Your task to perform on an android device: check google app version Image 0: 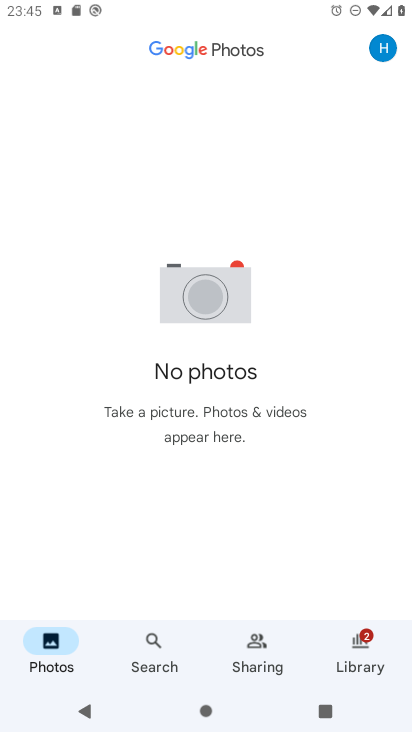
Step 0: press home button
Your task to perform on an android device: check google app version Image 1: 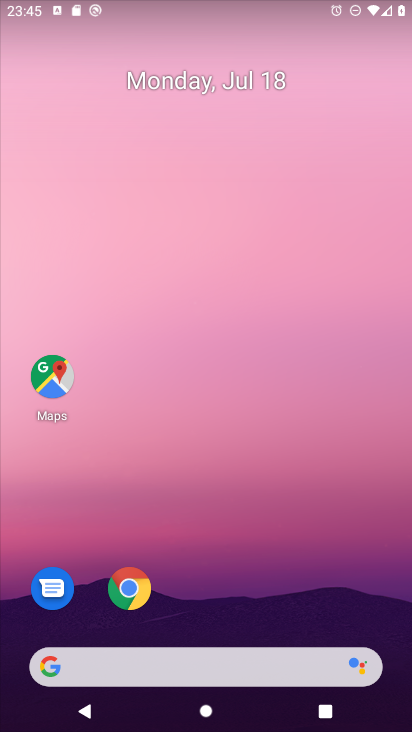
Step 1: click (126, 586)
Your task to perform on an android device: check google app version Image 2: 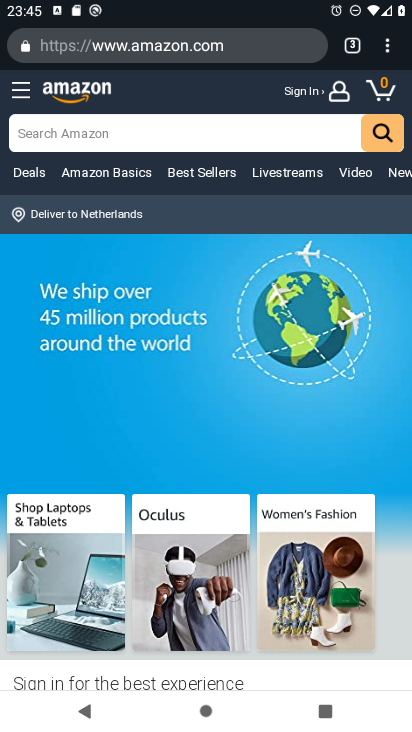
Step 2: click (390, 50)
Your task to perform on an android device: check google app version Image 3: 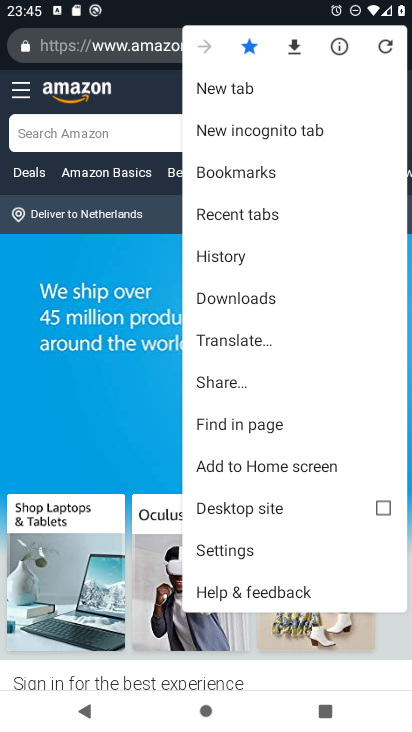
Step 3: click (215, 539)
Your task to perform on an android device: check google app version Image 4: 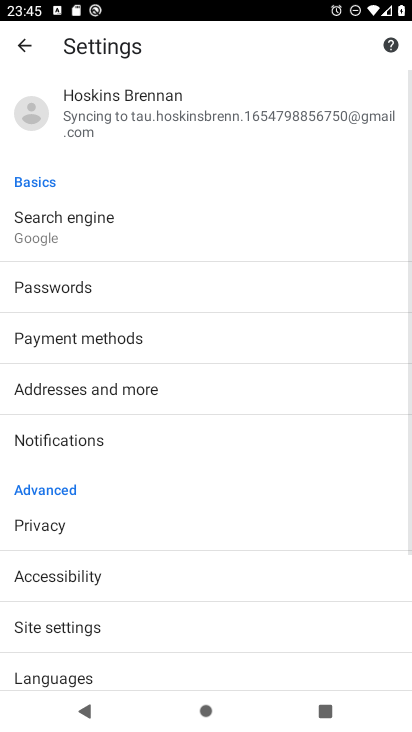
Step 4: drag from (170, 625) to (211, 112)
Your task to perform on an android device: check google app version Image 5: 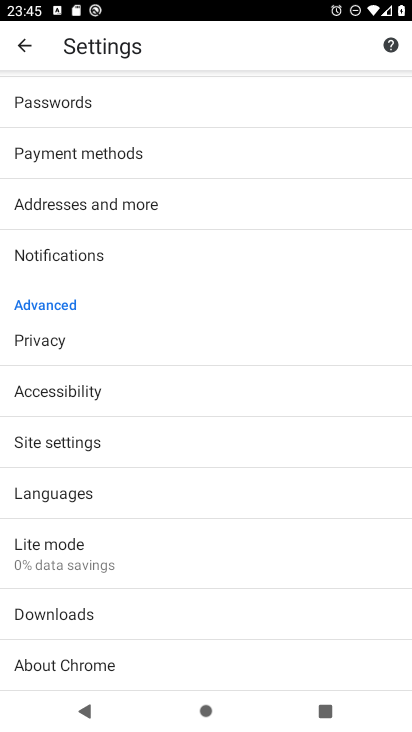
Step 5: click (42, 667)
Your task to perform on an android device: check google app version Image 6: 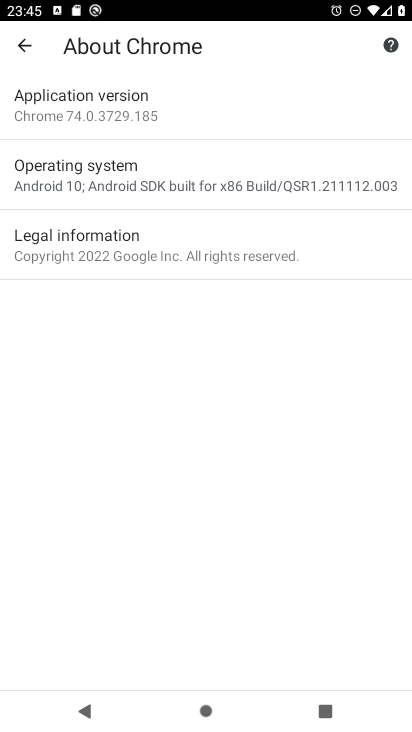
Step 6: click (108, 100)
Your task to perform on an android device: check google app version Image 7: 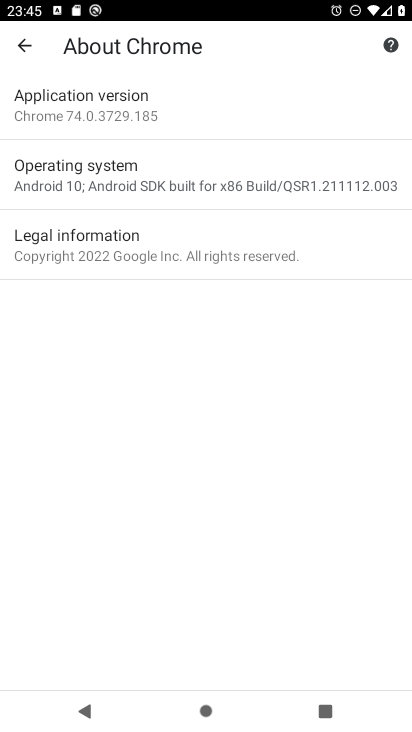
Step 7: task complete